Your task to perform on an android device: Go to sound settings Image 0: 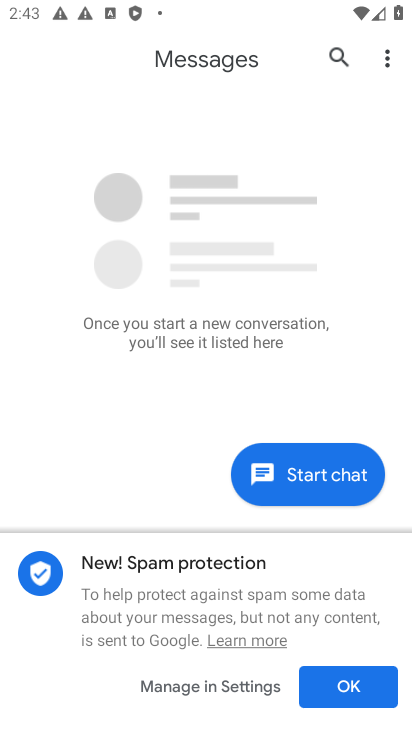
Step 0: click (384, 684)
Your task to perform on an android device: Go to sound settings Image 1: 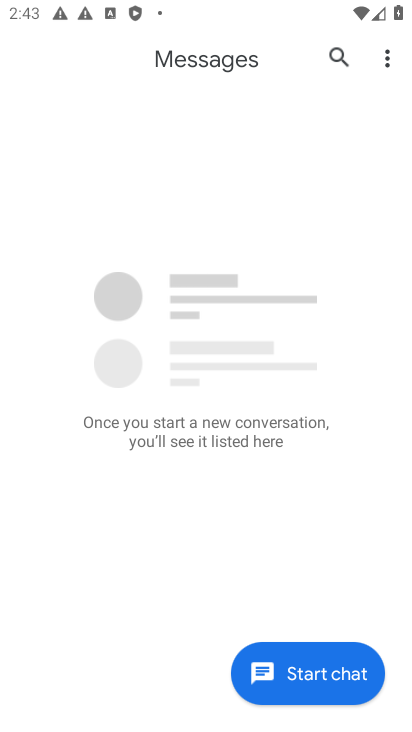
Step 1: press home button
Your task to perform on an android device: Go to sound settings Image 2: 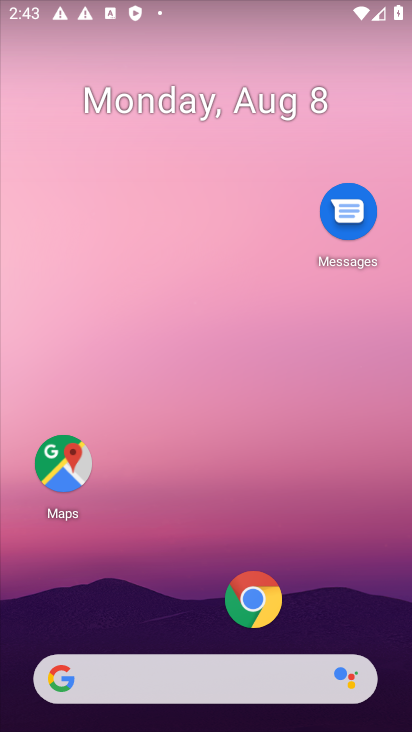
Step 2: drag from (123, 614) to (115, 97)
Your task to perform on an android device: Go to sound settings Image 3: 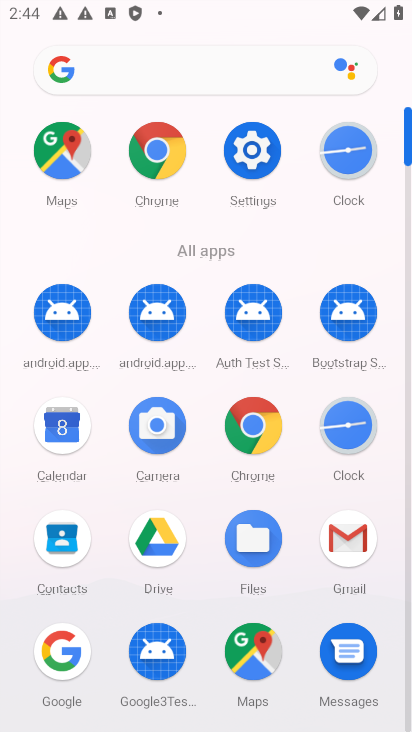
Step 3: click (265, 160)
Your task to perform on an android device: Go to sound settings Image 4: 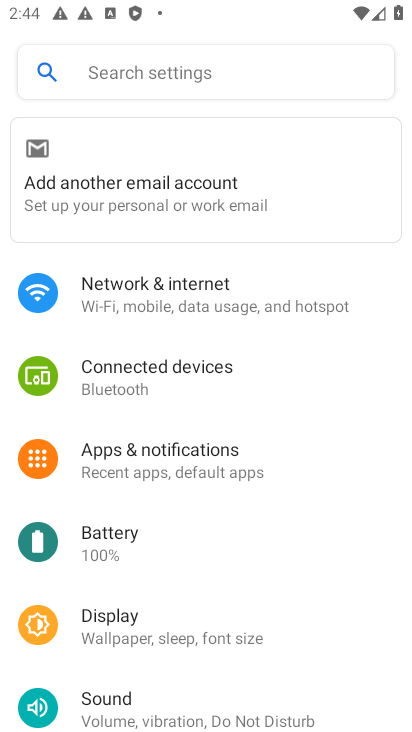
Step 4: click (203, 720)
Your task to perform on an android device: Go to sound settings Image 5: 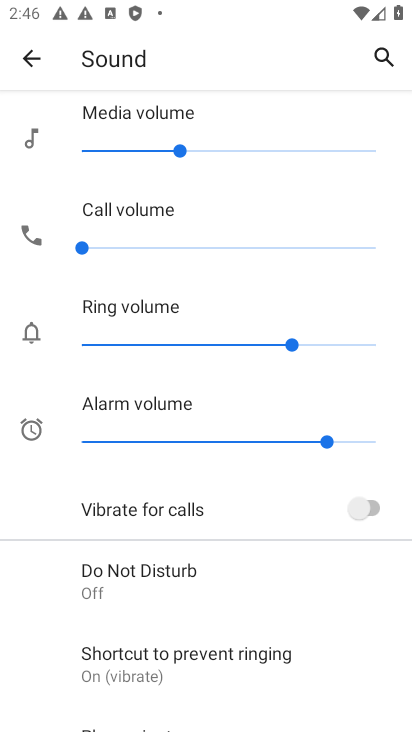
Step 5: task complete